Your task to perform on an android device: change timer sound Image 0: 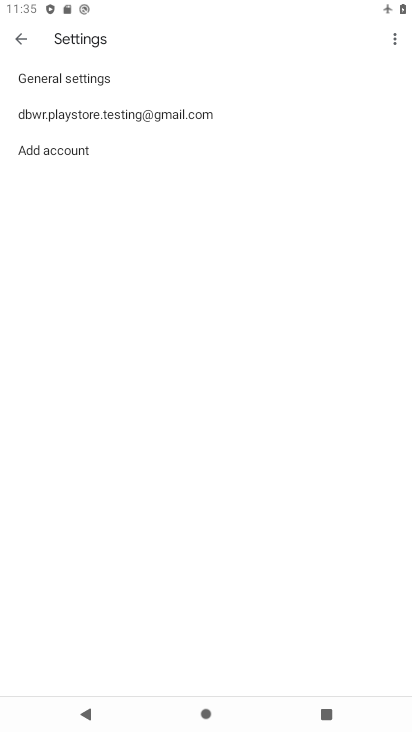
Step 0: press home button
Your task to perform on an android device: change timer sound Image 1: 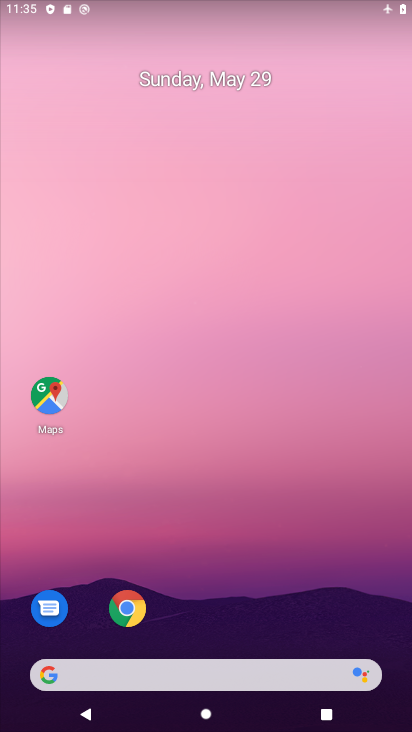
Step 1: drag from (221, 640) to (206, 720)
Your task to perform on an android device: change timer sound Image 2: 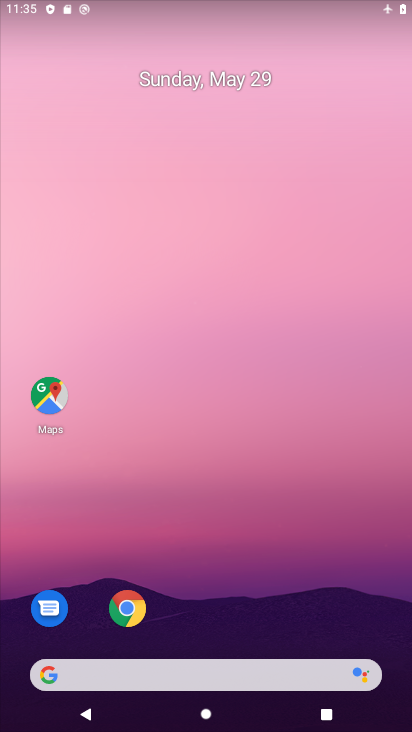
Step 2: drag from (239, 646) to (184, 151)
Your task to perform on an android device: change timer sound Image 3: 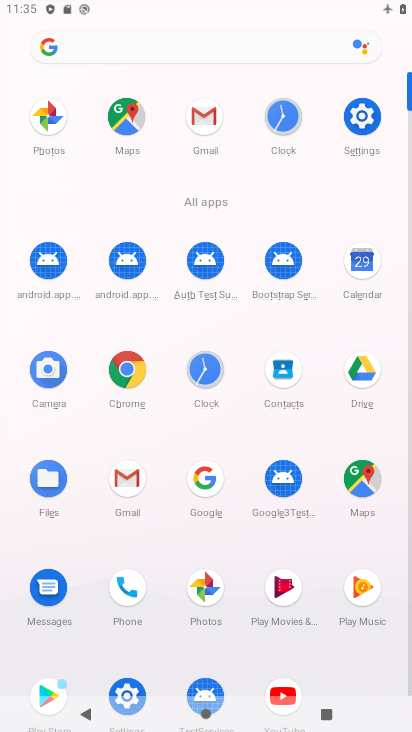
Step 3: click (206, 376)
Your task to perform on an android device: change timer sound Image 4: 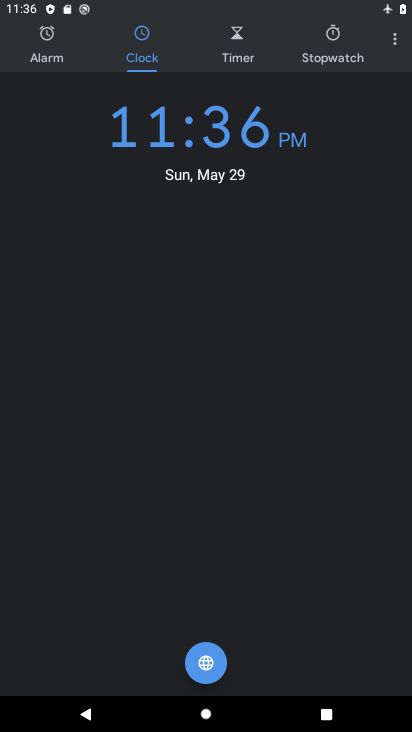
Step 4: click (385, 47)
Your task to perform on an android device: change timer sound Image 5: 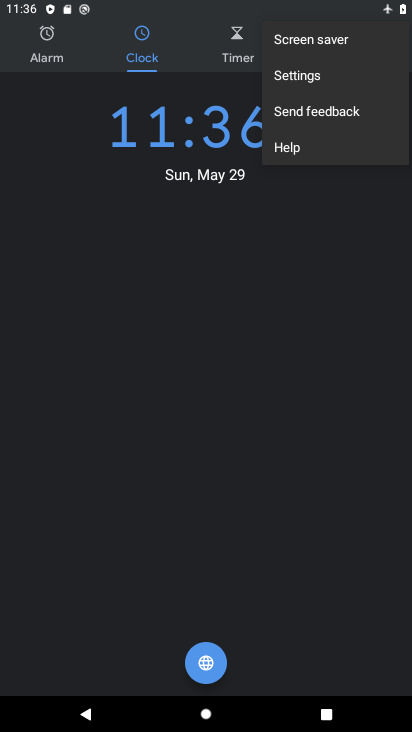
Step 5: click (268, 86)
Your task to perform on an android device: change timer sound Image 6: 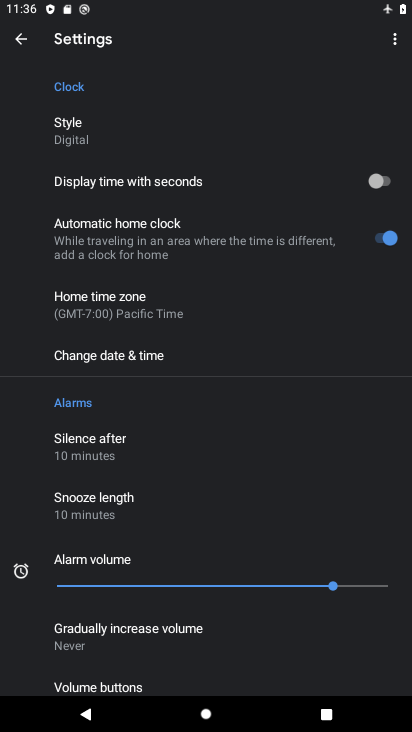
Step 6: drag from (244, 627) to (179, 248)
Your task to perform on an android device: change timer sound Image 7: 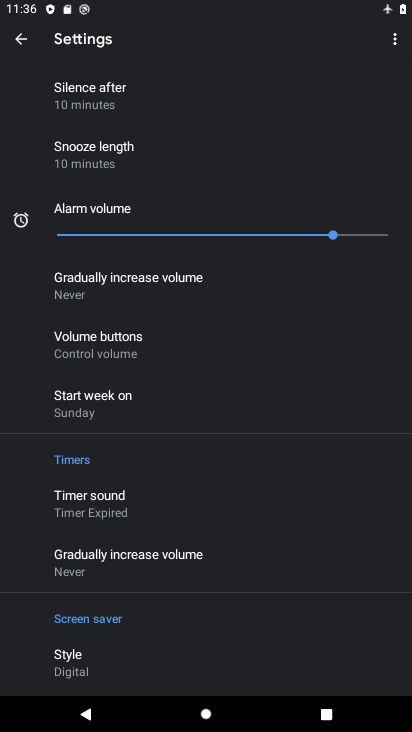
Step 7: click (99, 495)
Your task to perform on an android device: change timer sound Image 8: 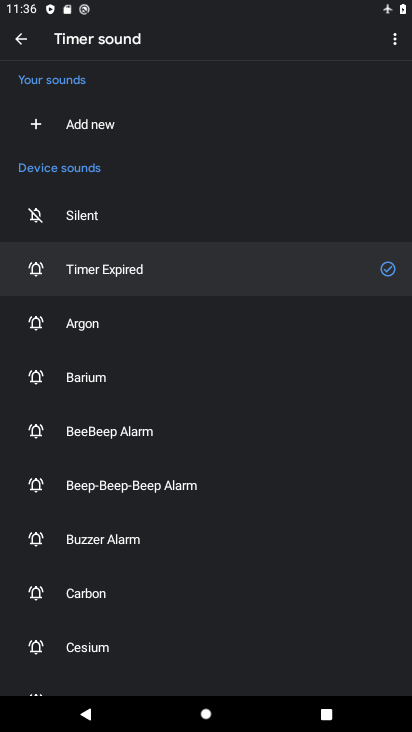
Step 8: click (107, 327)
Your task to perform on an android device: change timer sound Image 9: 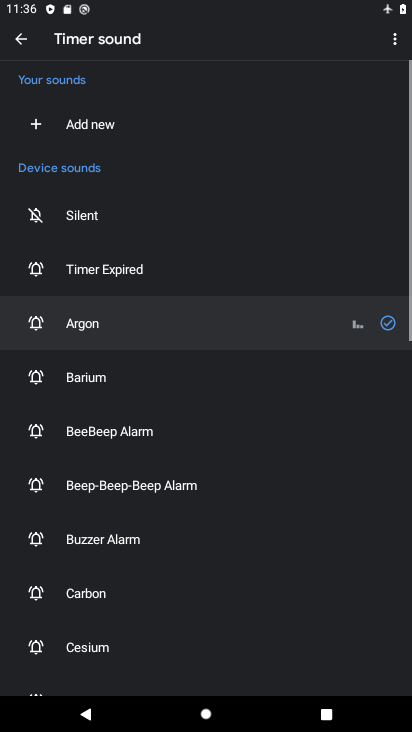
Step 9: task complete